Your task to perform on an android device: change your default location settings in chrome Image 0: 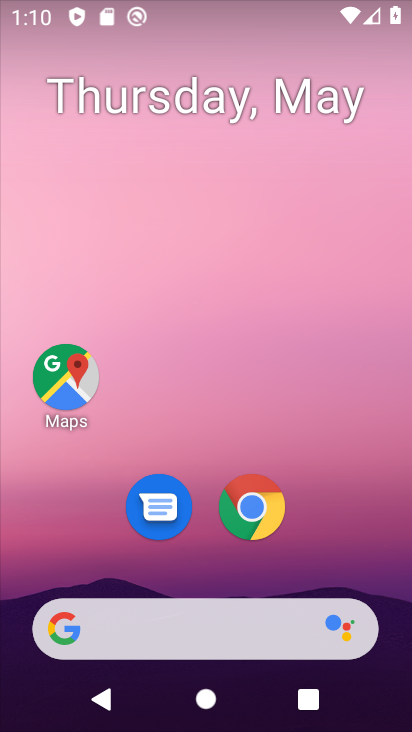
Step 0: drag from (281, 537) to (323, 336)
Your task to perform on an android device: change your default location settings in chrome Image 1: 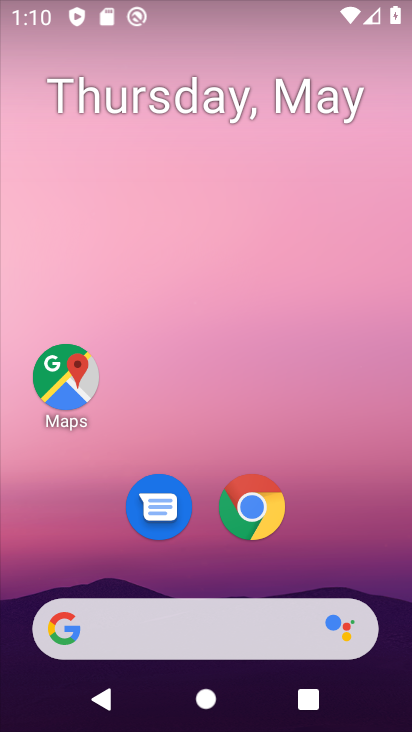
Step 1: drag from (302, 498) to (287, 128)
Your task to perform on an android device: change your default location settings in chrome Image 2: 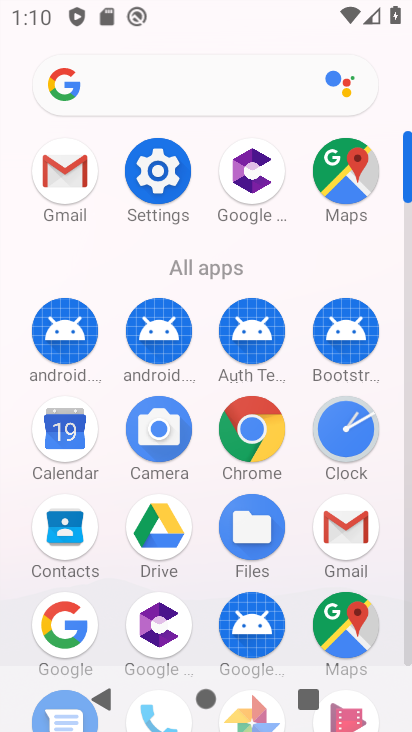
Step 2: click (266, 422)
Your task to perform on an android device: change your default location settings in chrome Image 3: 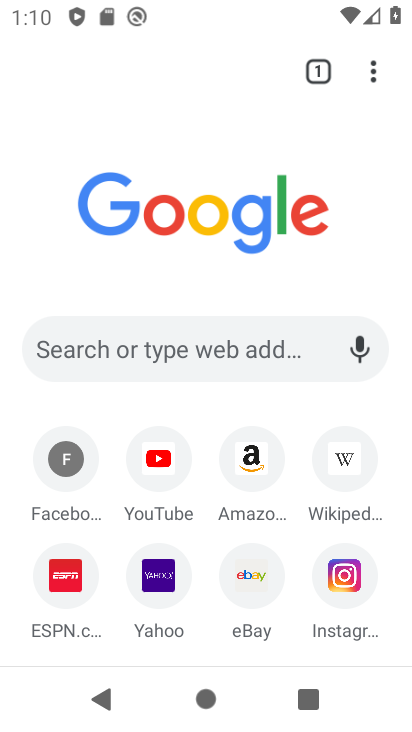
Step 3: click (371, 78)
Your task to perform on an android device: change your default location settings in chrome Image 4: 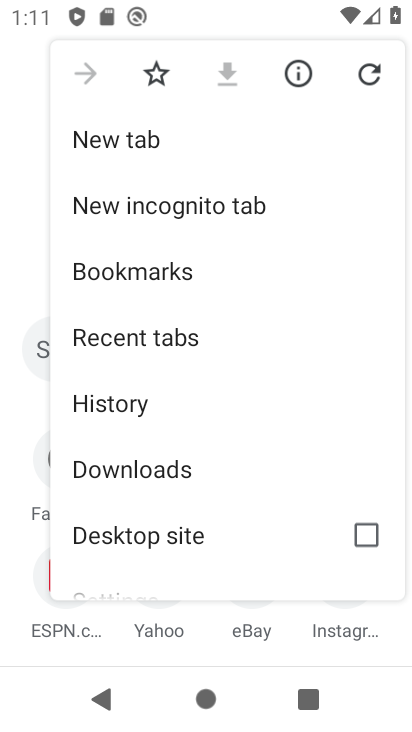
Step 4: drag from (231, 508) to (262, 241)
Your task to perform on an android device: change your default location settings in chrome Image 5: 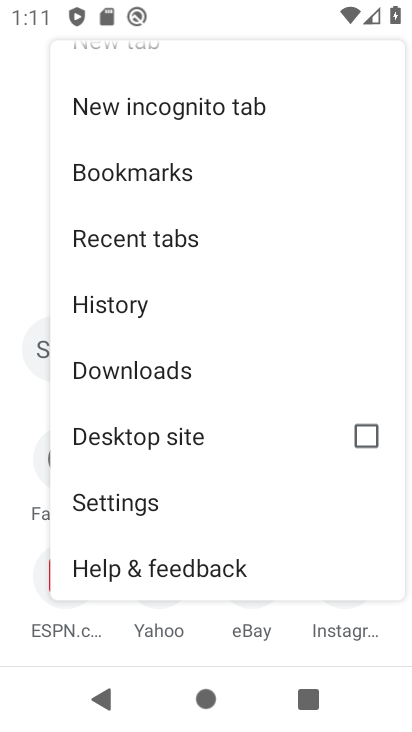
Step 5: click (161, 502)
Your task to perform on an android device: change your default location settings in chrome Image 6: 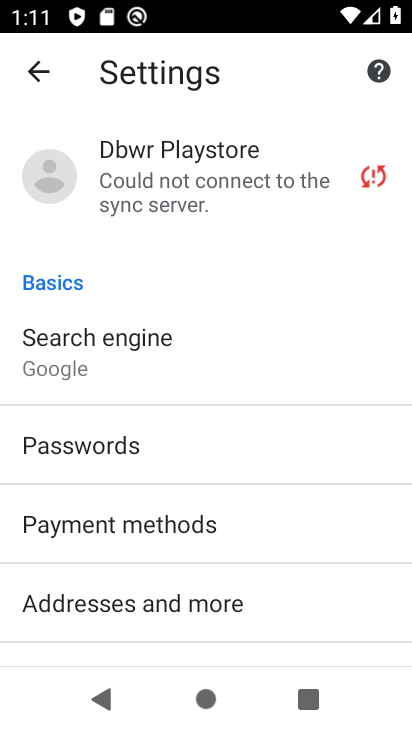
Step 6: drag from (207, 561) to (247, 223)
Your task to perform on an android device: change your default location settings in chrome Image 7: 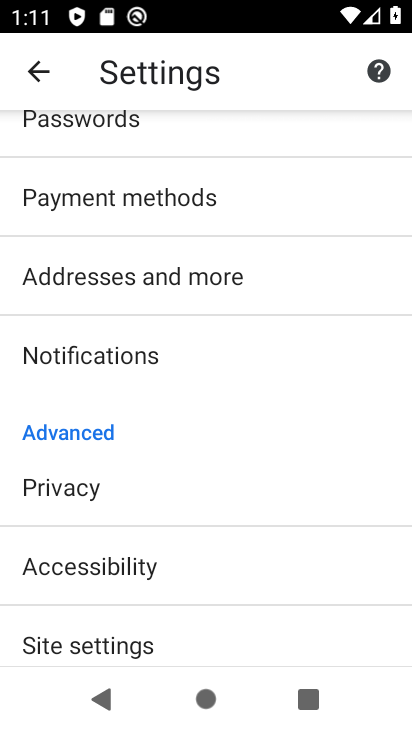
Step 7: drag from (163, 593) to (246, 256)
Your task to perform on an android device: change your default location settings in chrome Image 8: 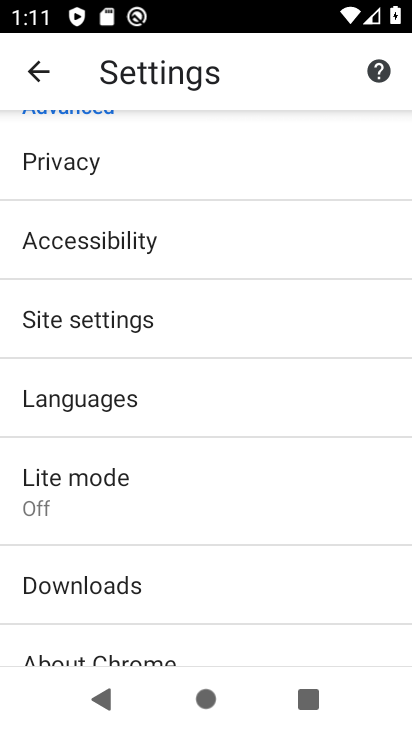
Step 8: drag from (155, 187) to (222, 592)
Your task to perform on an android device: change your default location settings in chrome Image 9: 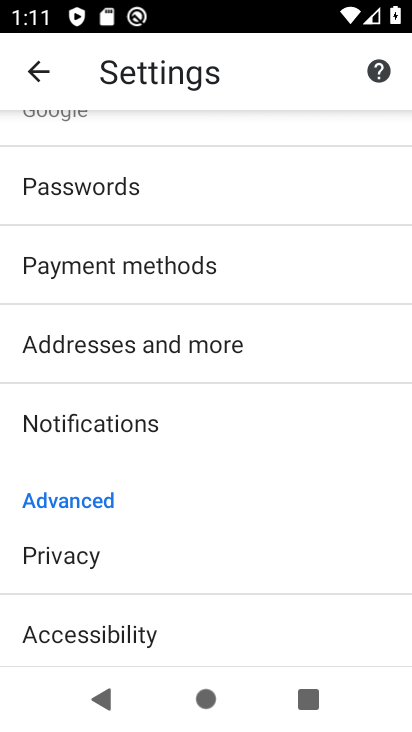
Step 9: drag from (134, 612) to (200, 365)
Your task to perform on an android device: change your default location settings in chrome Image 10: 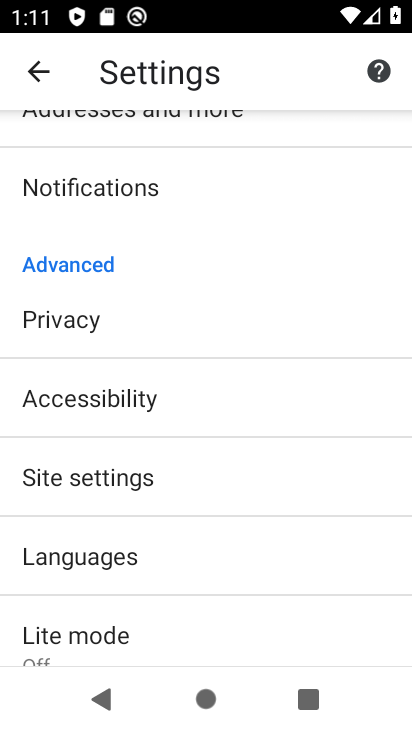
Step 10: click (120, 468)
Your task to perform on an android device: change your default location settings in chrome Image 11: 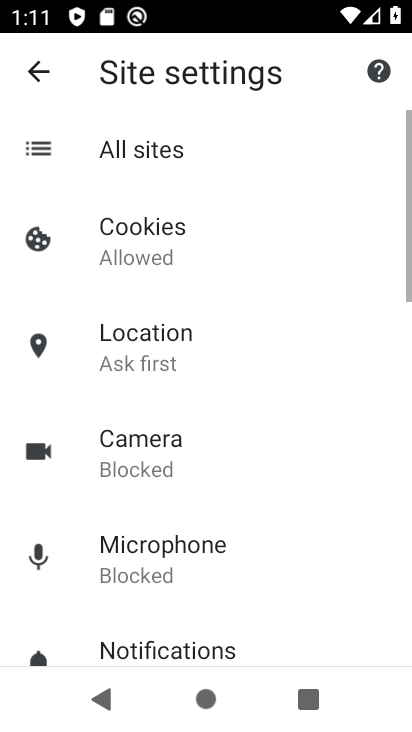
Step 11: click (158, 329)
Your task to perform on an android device: change your default location settings in chrome Image 12: 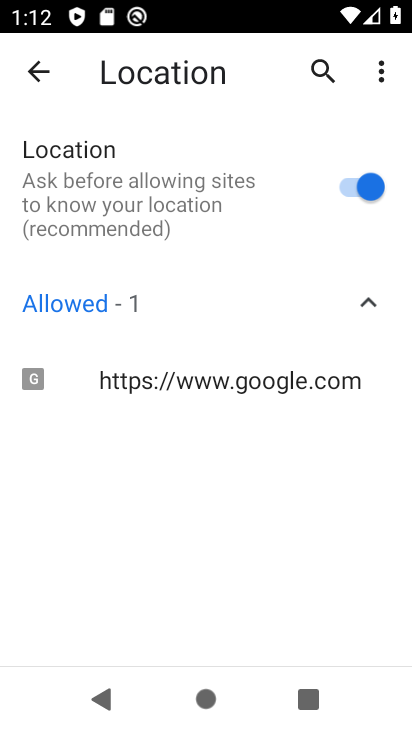
Step 12: task complete